Your task to perform on an android device: Open Maps and search for coffee Image 0: 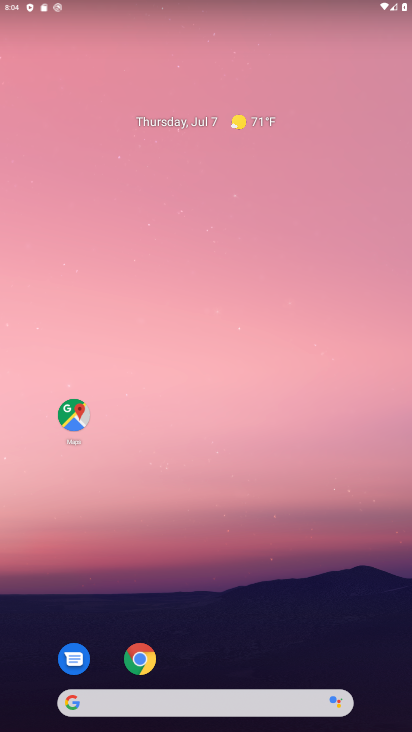
Step 0: drag from (199, 664) to (280, 207)
Your task to perform on an android device: Open Maps and search for coffee Image 1: 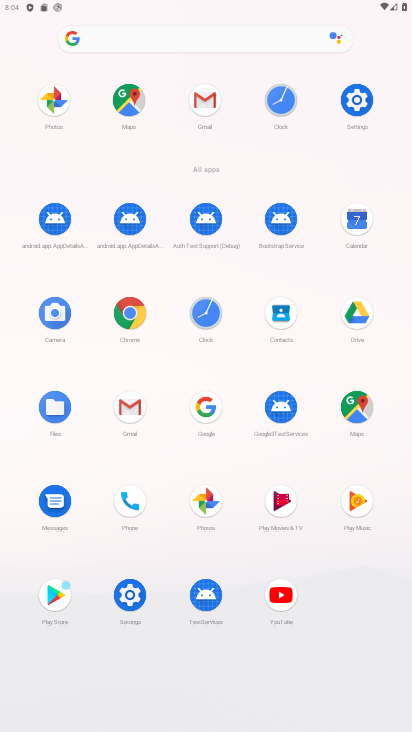
Step 1: click (360, 418)
Your task to perform on an android device: Open Maps and search for coffee Image 2: 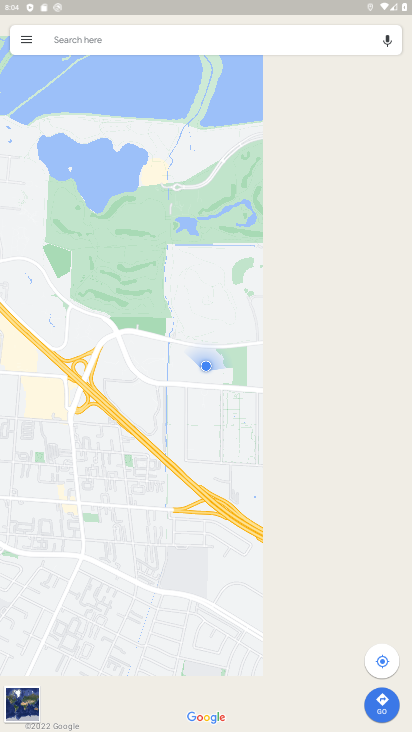
Step 2: click (121, 35)
Your task to perform on an android device: Open Maps and search for coffee Image 3: 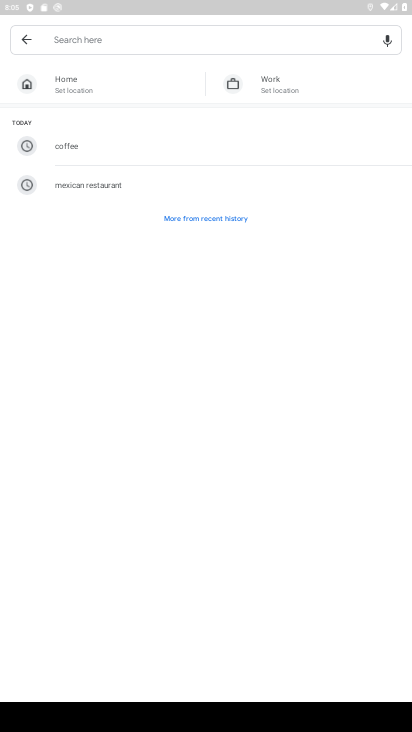
Step 3: type "Coffee"
Your task to perform on an android device: Open Maps and search for coffee Image 4: 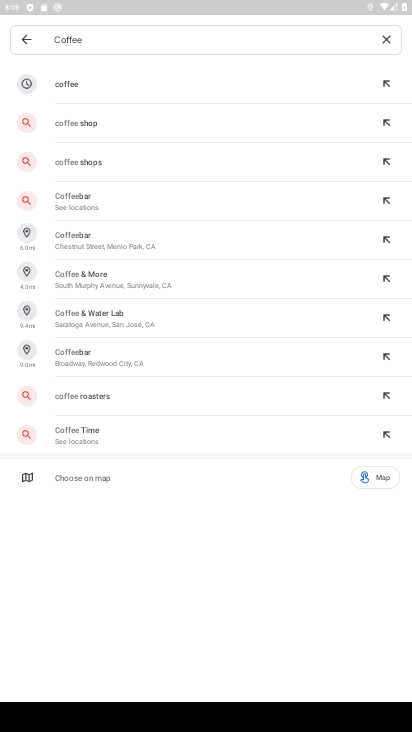
Step 4: click (115, 82)
Your task to perform on an android device: Open Maps and search for coffee Image 5: 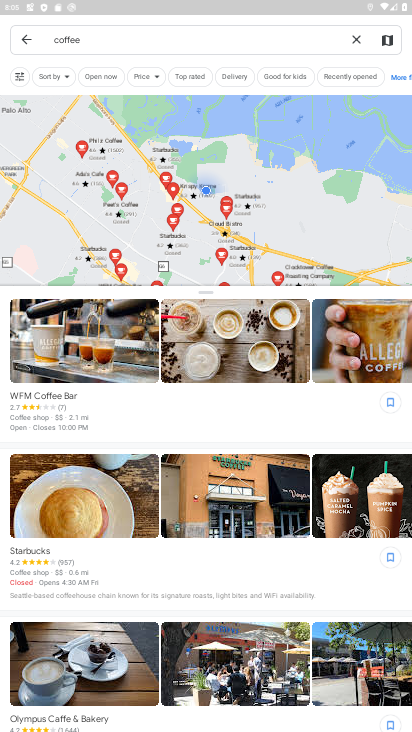
Step 5: task complete